Your task to perform on an android device: open app "Google Maps" (install if not already installed) Image 0: 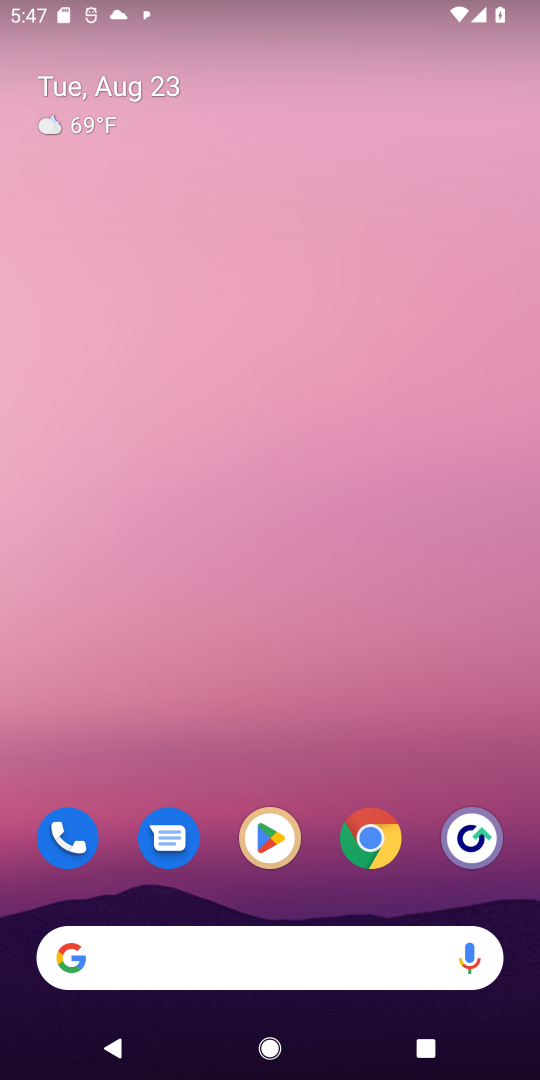
Step 0: drag from (306, 906) to (318, 14)
Your task to perform on an android device: open app "Google Maps" (install if not already installed) Image 1: 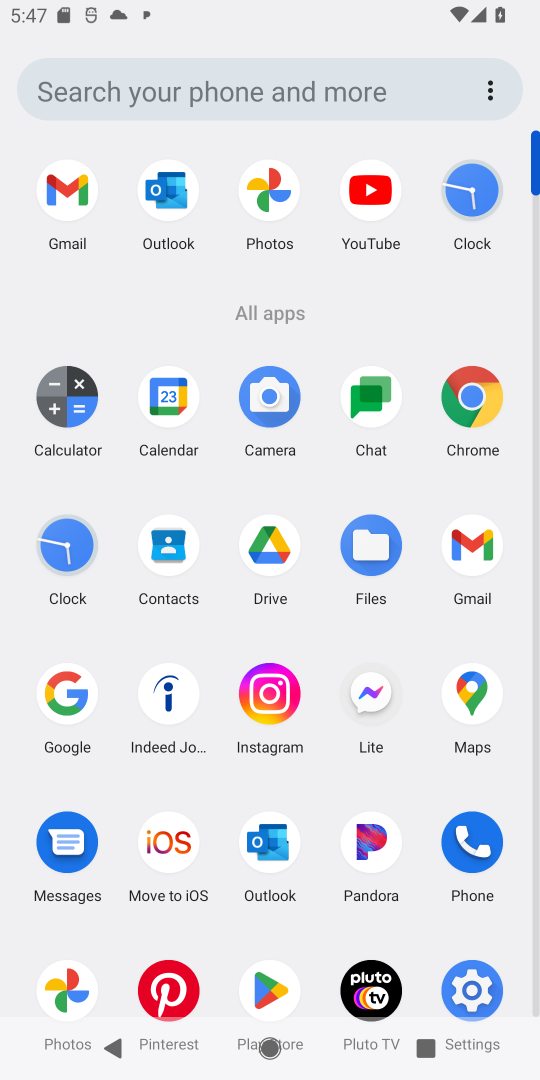
Step 1: click (477, 704)
Your task to perform on an android device: open app "Google Maps" (install if not already installed) Image 2: 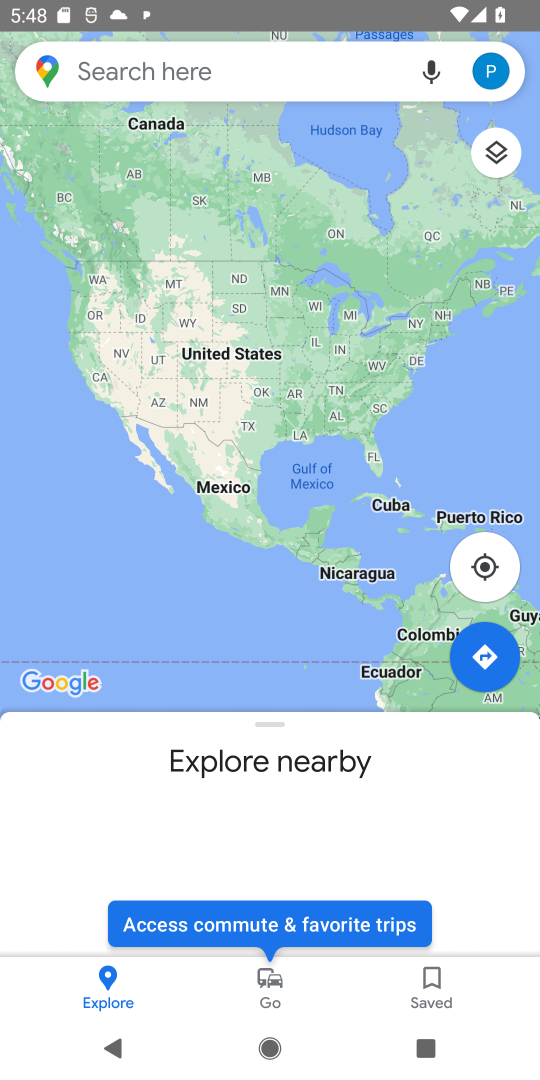
Step 2: task complete